Your task to perform on an android device: open chrome and create a bookmark for the current page Image 0: 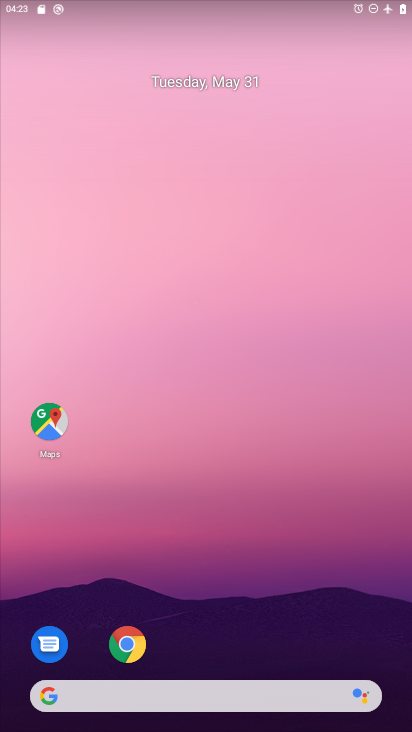
Step 0: drag from (271, 627) to (269, 111)
Your task to perform on an android device: open chrome and create a bookmark for the current page Image 1: 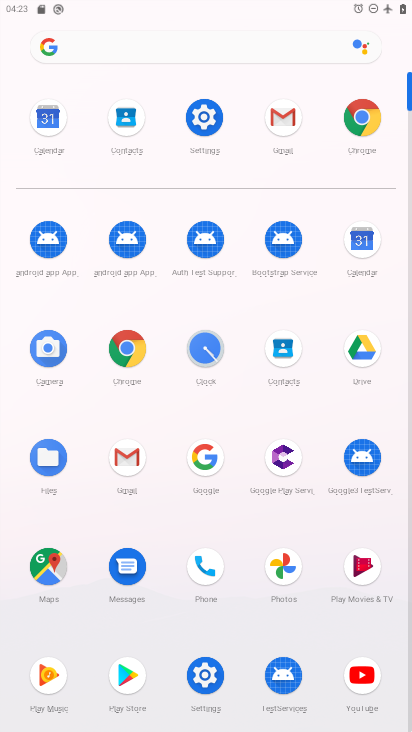
Step 1: click (126, 346)
Your task to perform on an android device: open chrome and create a bookmark for the current page Image 2: 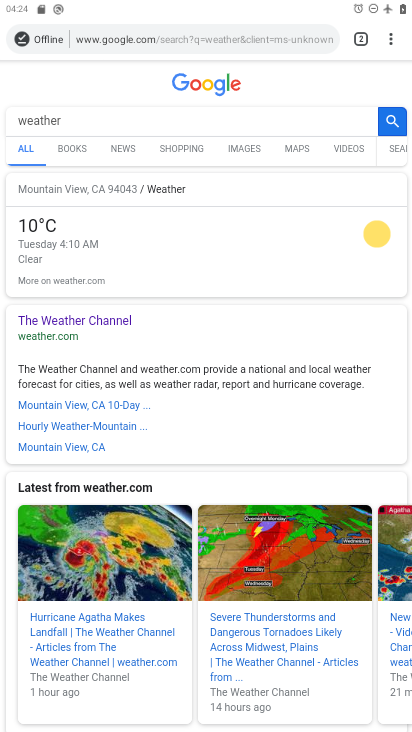
Step 2: task complete